Your task to perform on an android device: What's the weather? Image 0: 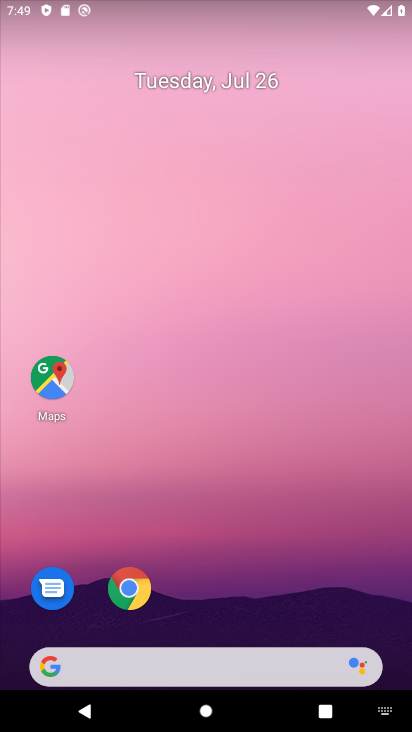
Step 0: drag from (258, 565) to (200, 0)
Your task to perform on an android device: What's the weather? Image 1: 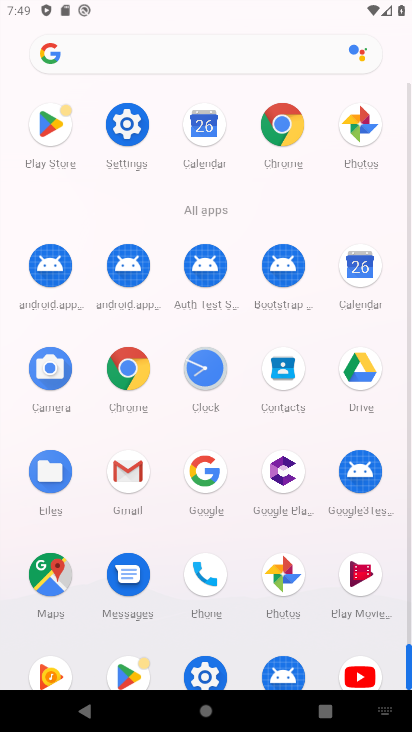
Step 1: click (285, 116)
Your task to perform on an android device: What's the weather? Image 2: 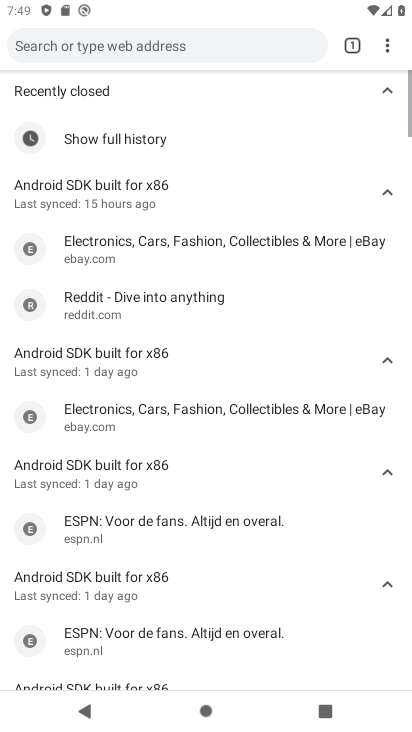
Step 2: click (232, 46)
Your task to perform on an android device: What's the weather? Image 3: 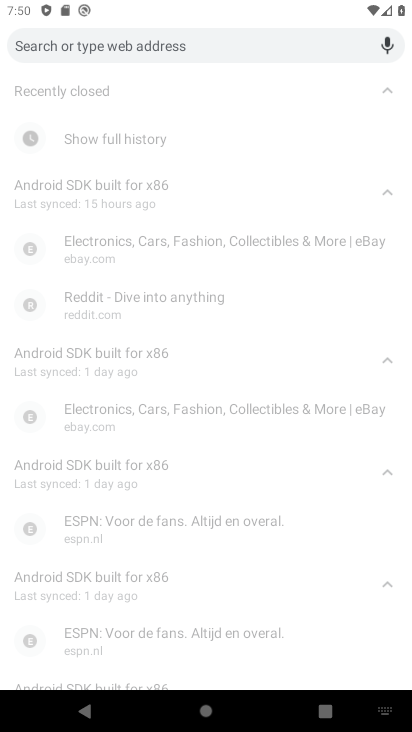
Step 3: type "weather"
Your task to perform on an android device: What's the weather? Image 4: 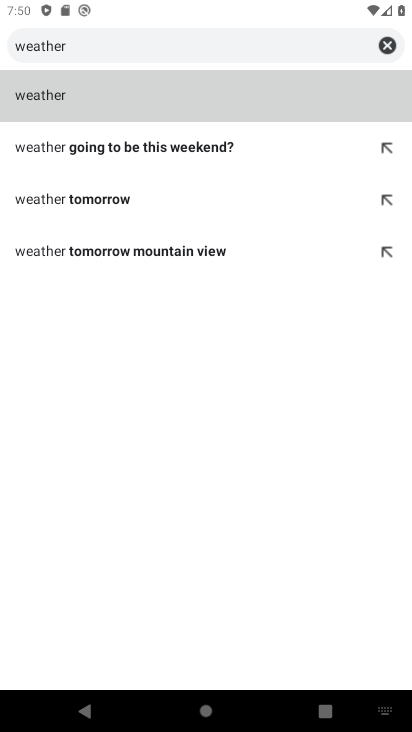
Step 4: click (131, 102)
Your task to perform on an android device: What's the weather? Image 5: 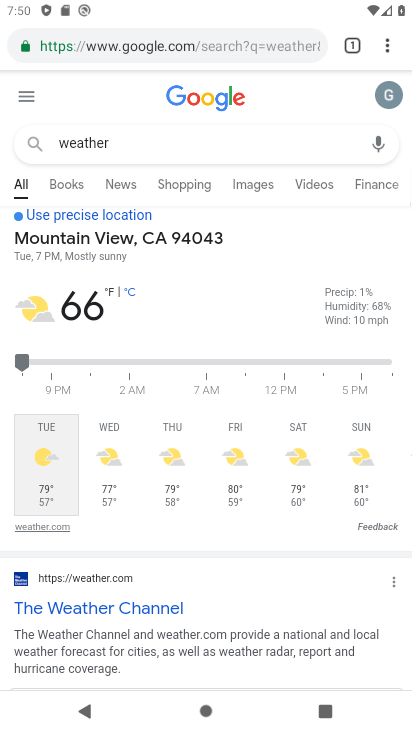
Step 5: task complete